Your task to perform on an android device: Open Android settings Image 0: 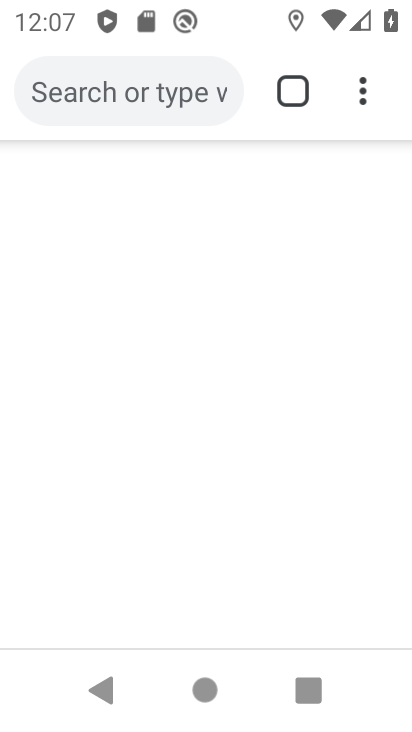
Step 0: click (260, 439)
Your task to perform on an android device: Open Android settings Image 1: 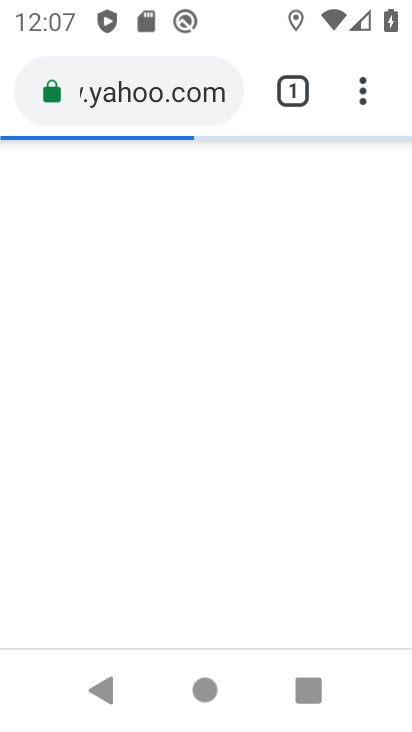
Step 1: press home button
Your task to perform on an android device: Open Android settings Image 2: 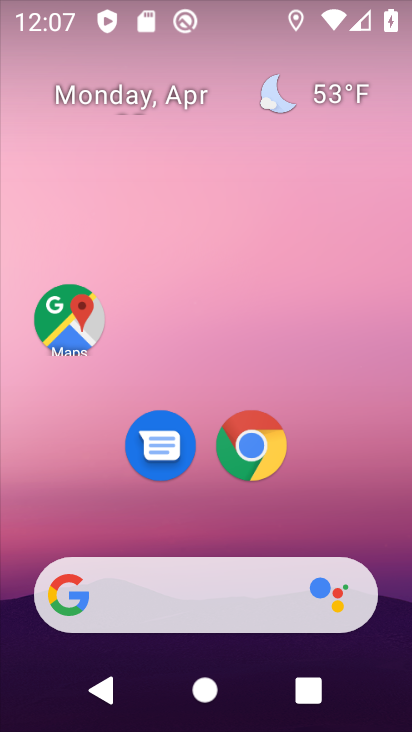
Step 2: drag from (337, 513) to (295, 27)
Your task to perform on an android device: Open Android settings Image 3: 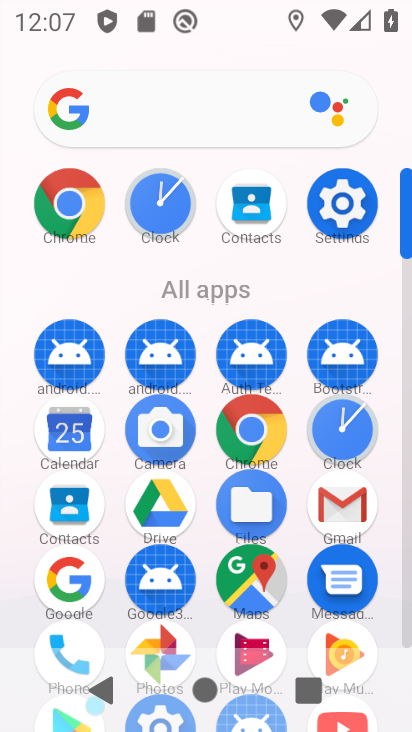
Step 3: click (343, 200)
Your task to perform on an android device: Open Android settings Image 4: 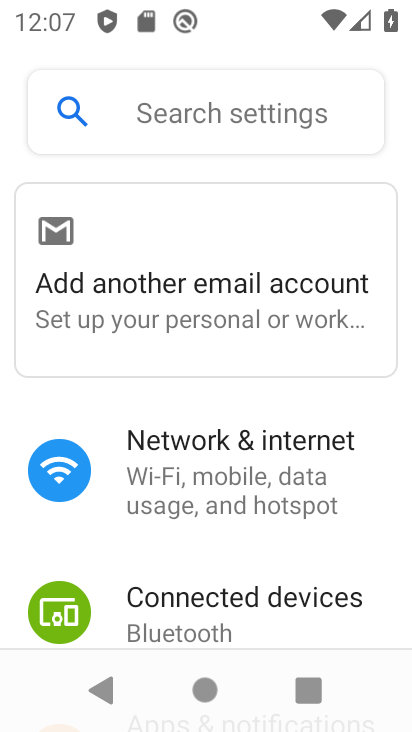
Step 4: task complete